Your task to perform on an android device: Open calendar and show me the second week of next month Image 0: 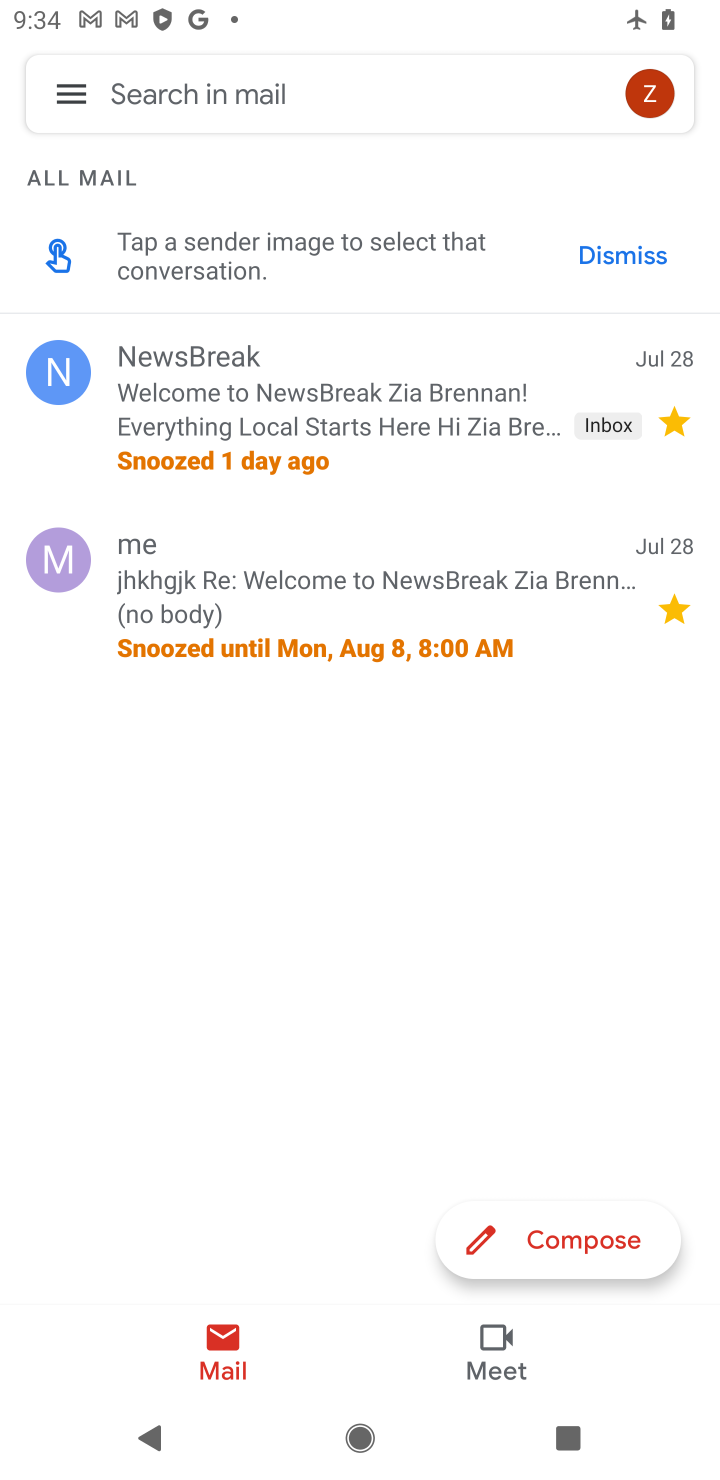
Step 0: press home button
Your task to perform on an android device: Open calendar and show me the second week of next month Image 1: 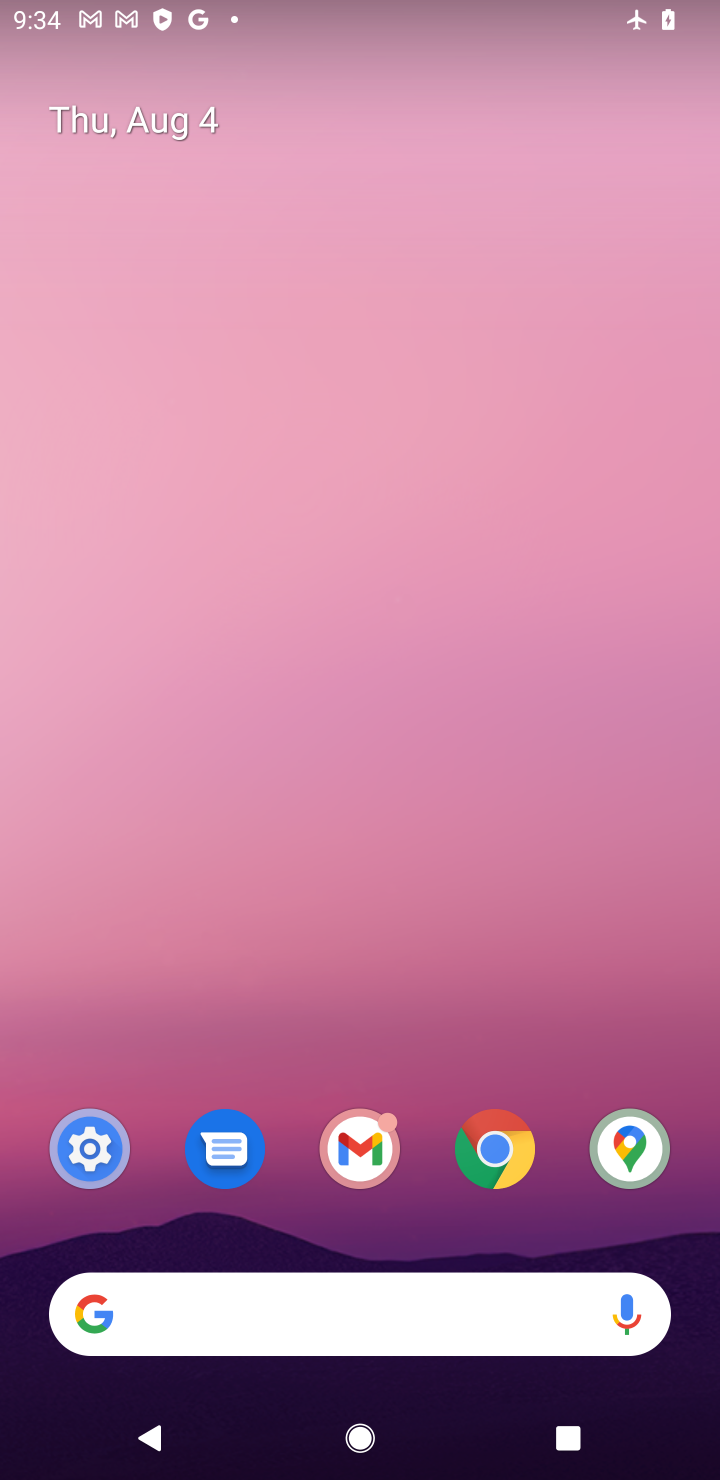
Step 1: drag from (675, 1008) to (539, 134)
Your task to perform on an android device: Open calendar and show me the second week of next month Image 2: 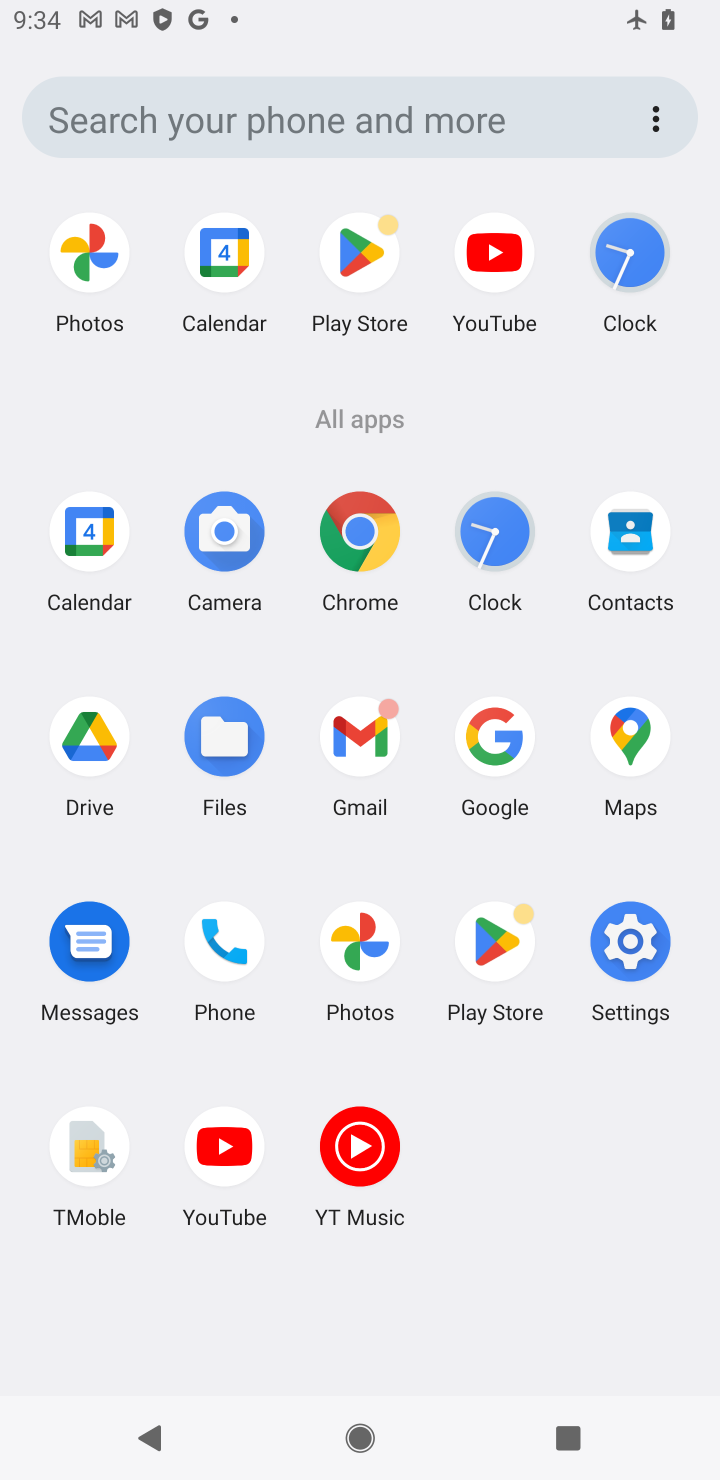
Step 2: click (80, 535)
Your task to perform on an android device: Open calendar and show me the second week of next month Image 3: 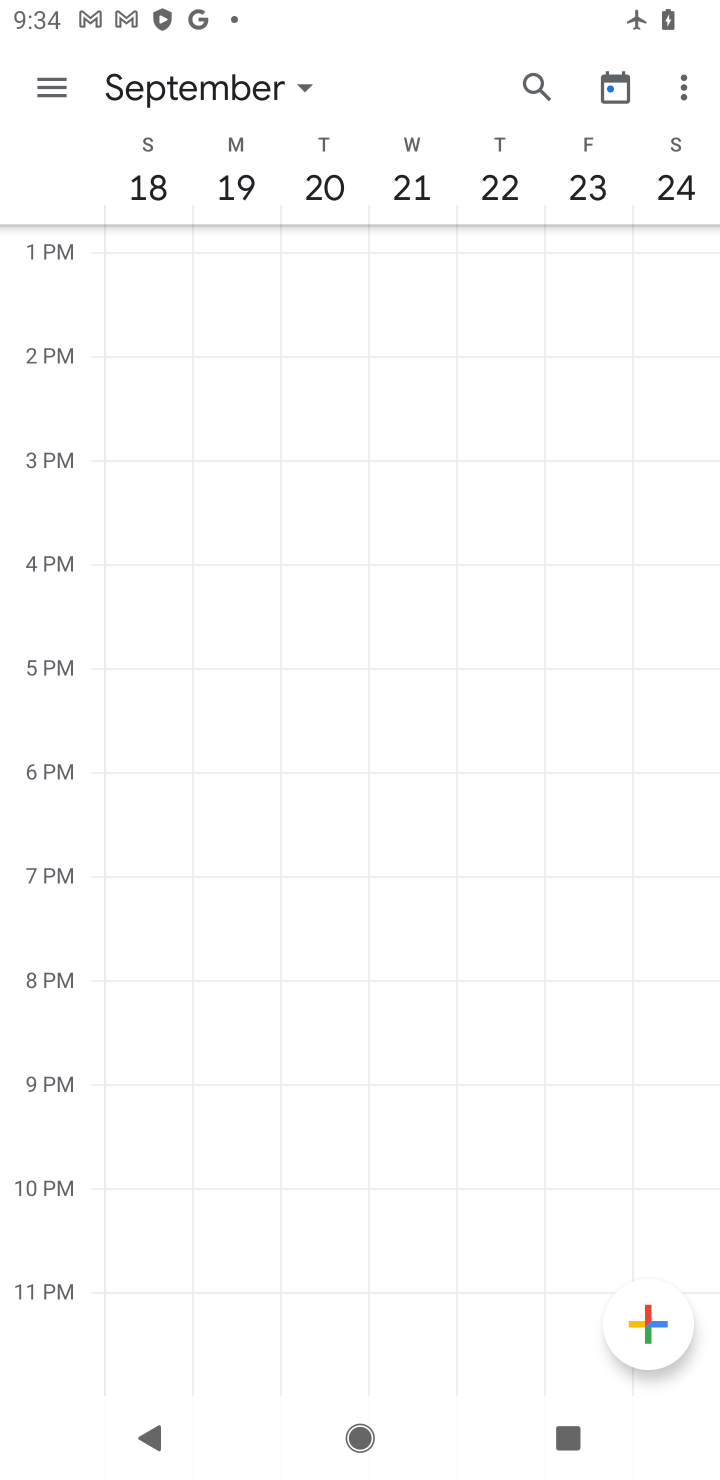
Step 3: click (303, 88)
Your task to perform on an android device: Open calendar and show me the second week of next month Image 4: 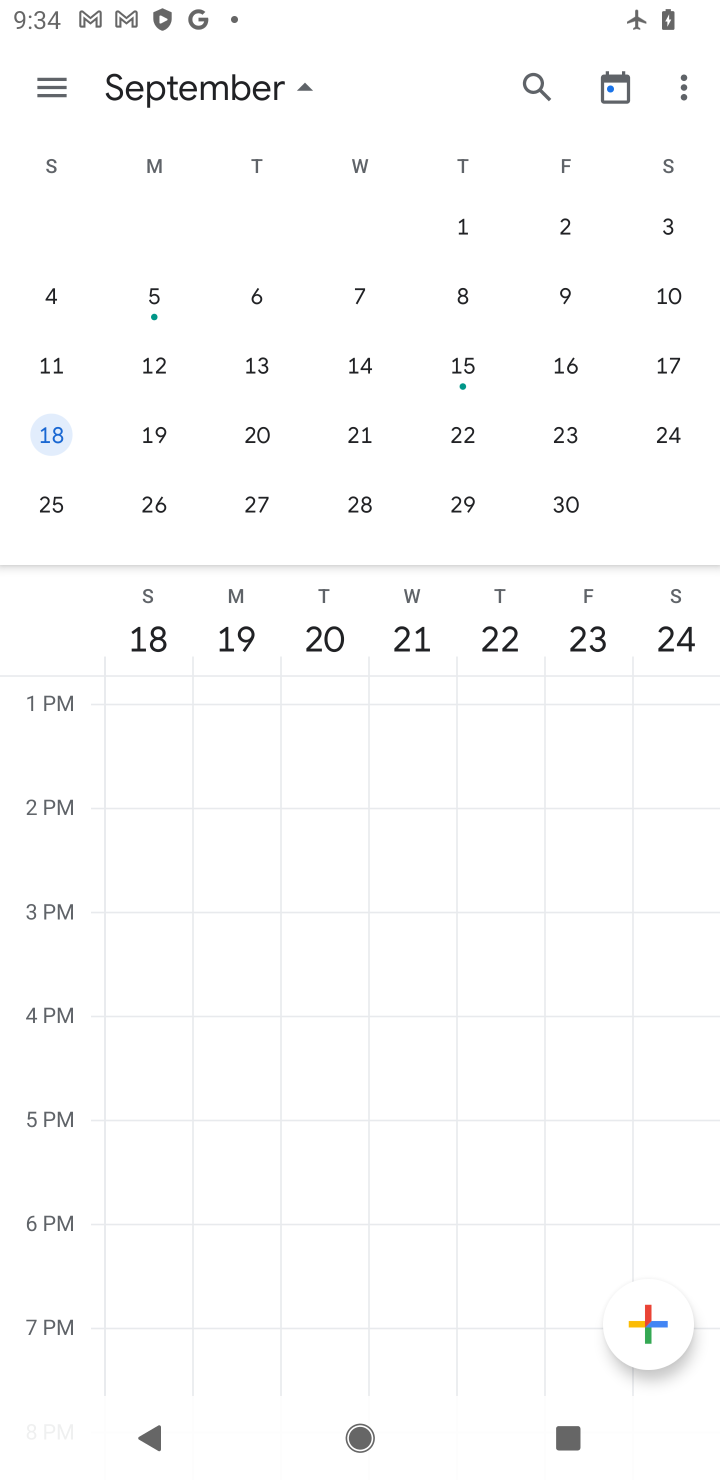
Step 4: click (46, 370)
Your task to perform on an android device: Open calendar and show me the second week of next month Image 5: 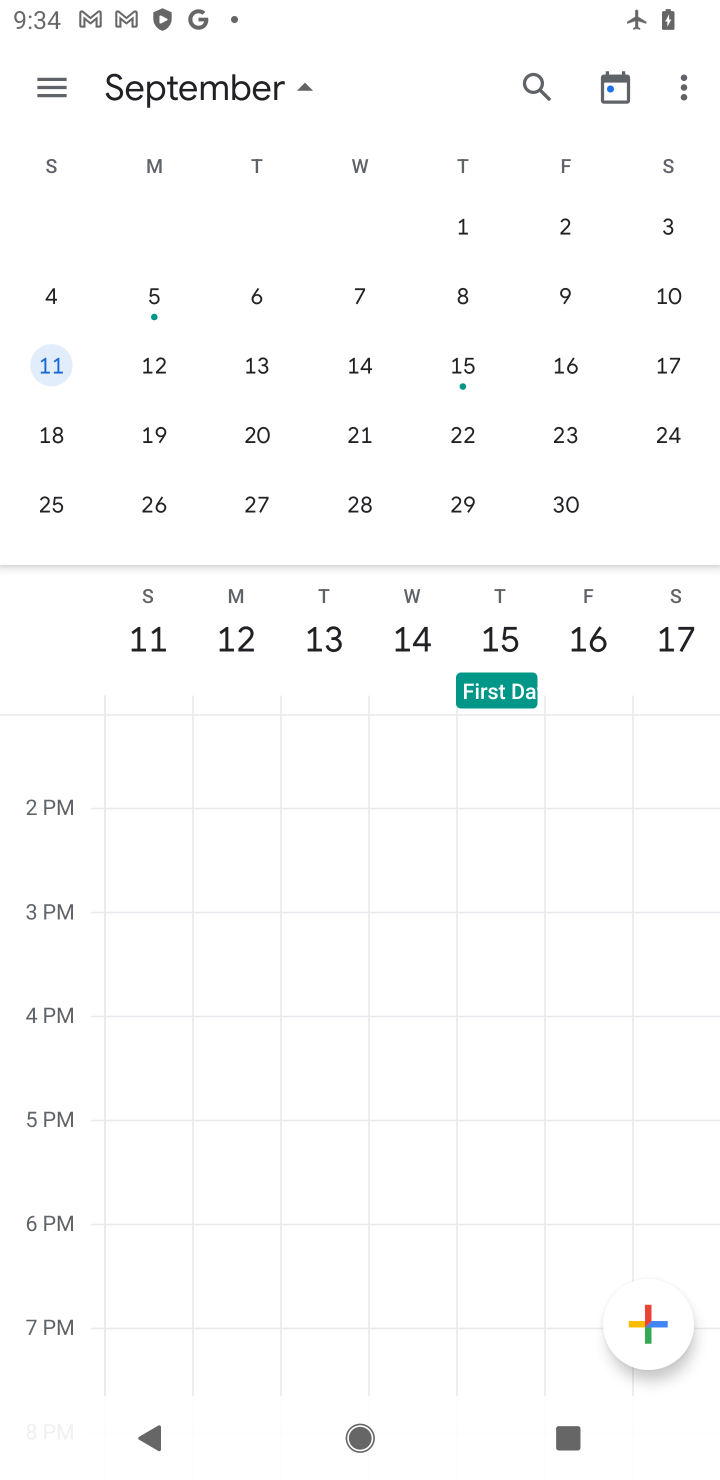
Step 5: click (300, 75)
Your task to perform on an android device: Open calendar and show me the second week of next month Image 6: 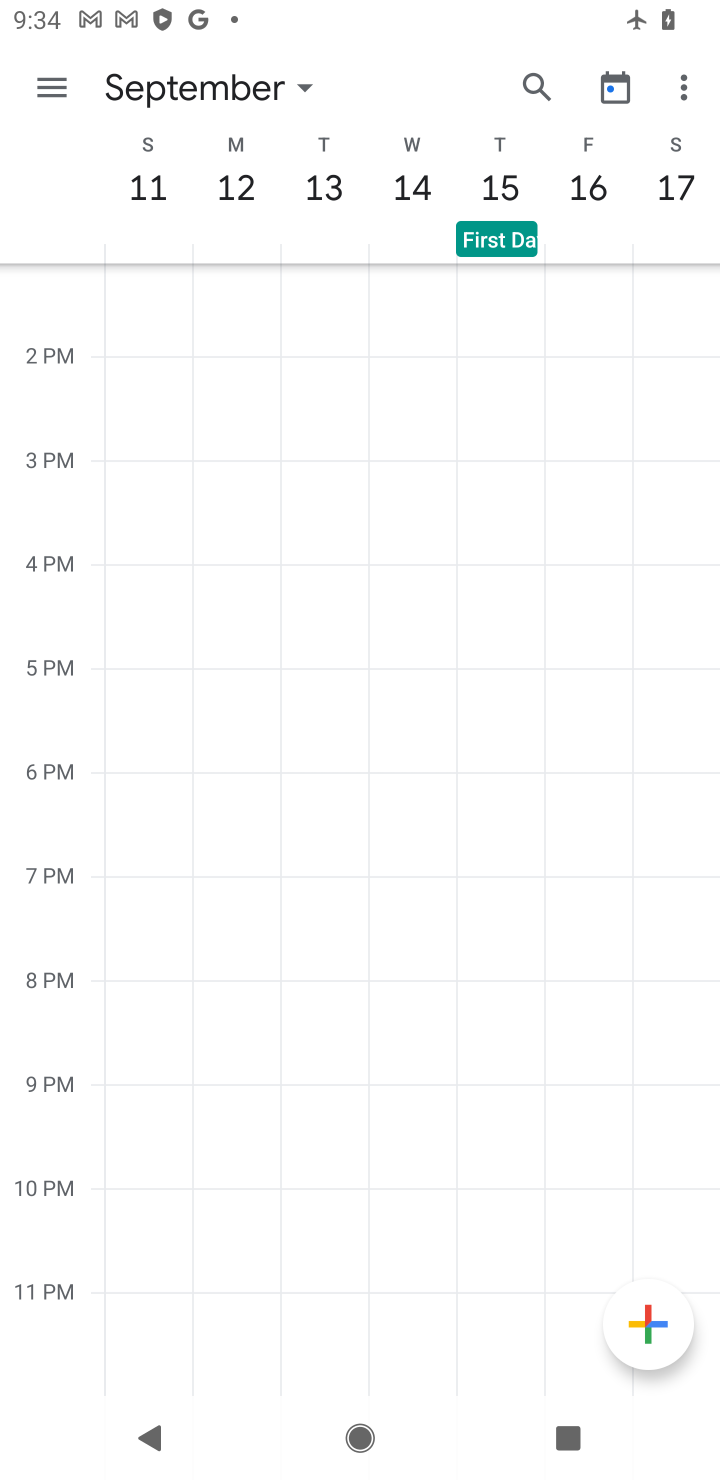
Step 6: task complete